Your task to perform on an android device: stop showing notifications on the lock screen Image 0: 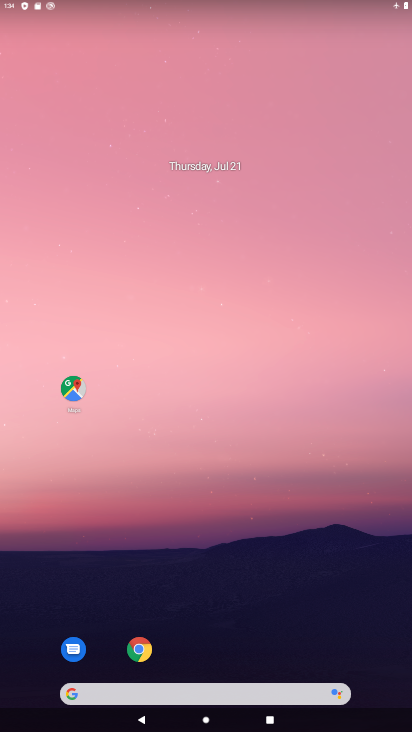
Step 0: drag from (252, 653) to (240, 246)
Your task to perform on an android device: stop showing notifications on the lock screen Image 1: 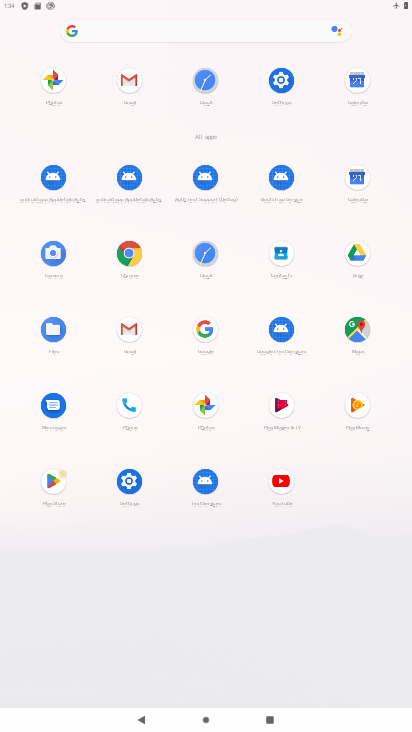
Step 1: click (281, 78)
Your task to perform on an android device: stop showing notifications on the lock screen Image 2: 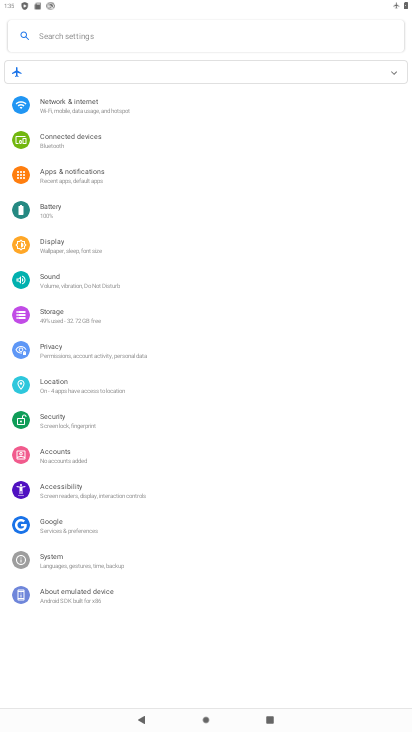
Step 2: click (115, 184)
Your task to perform on an android device: stop showing notifications on the lock screen Image 3: 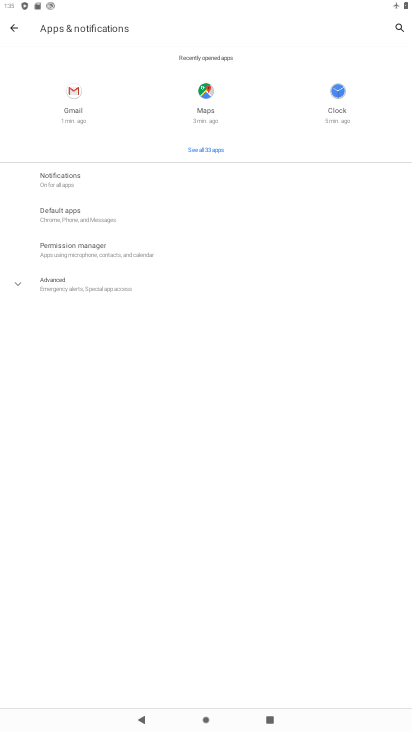
Step 3: click (78, 168)
Your task to perform on an android device: stop showing notifications on the lock screen Image 4: 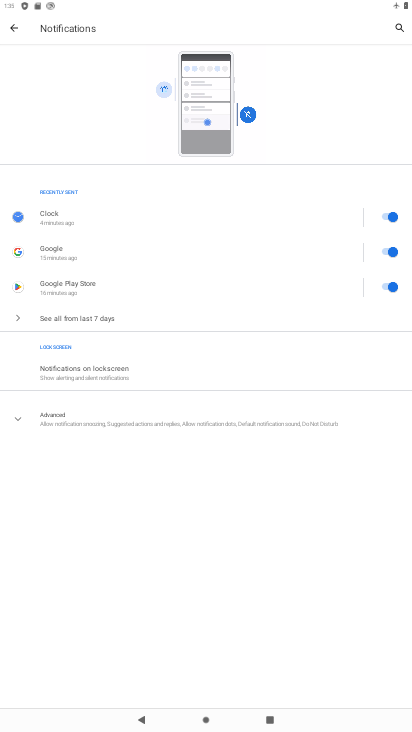
Step 4: click (87, 420)
Your task to perform on an android device: stop showing notifications on the lock screen Image 5: 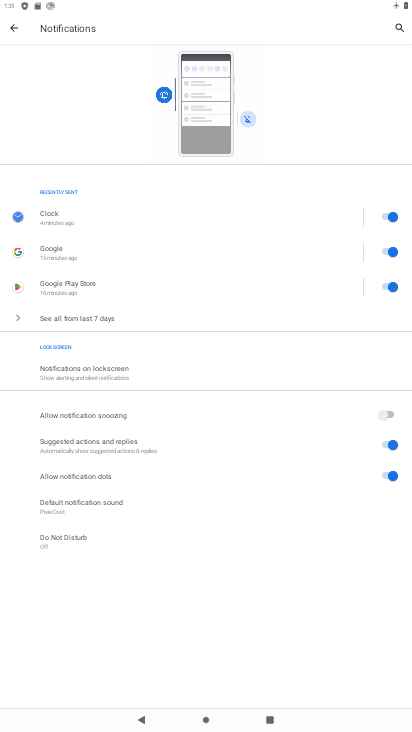
Step 5: click (97, 374)
Your task to perform on an android device: stop showing notifications on the lock screen Image 6: 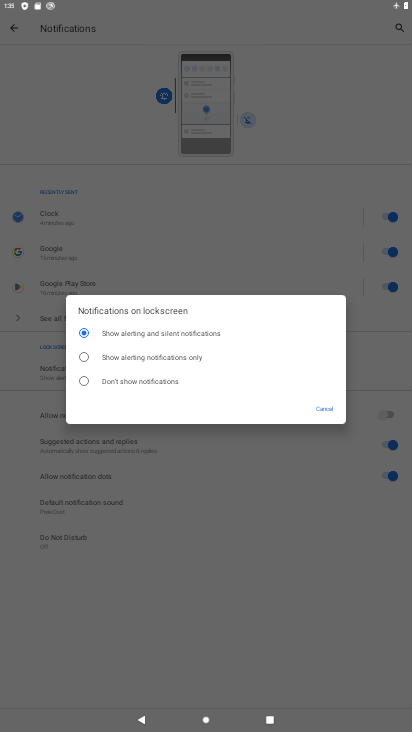
Step 6: click (101, 379)
Your task to perform on an android device: stop showing notifications on the lock screen Image 7: 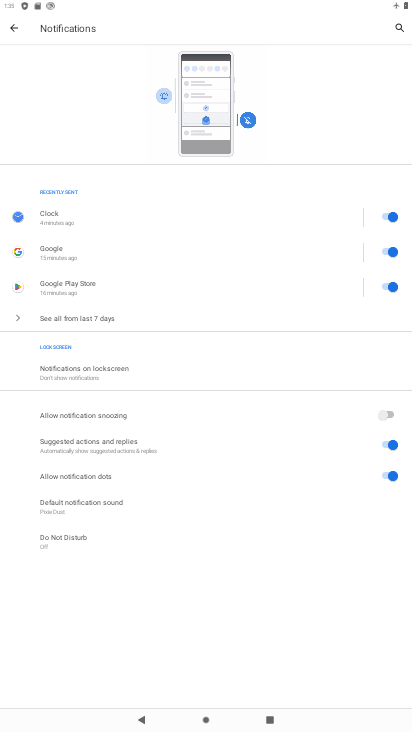
Step 7: task complete